Your task to perform on an android device: When is my next meeting? Image 0: 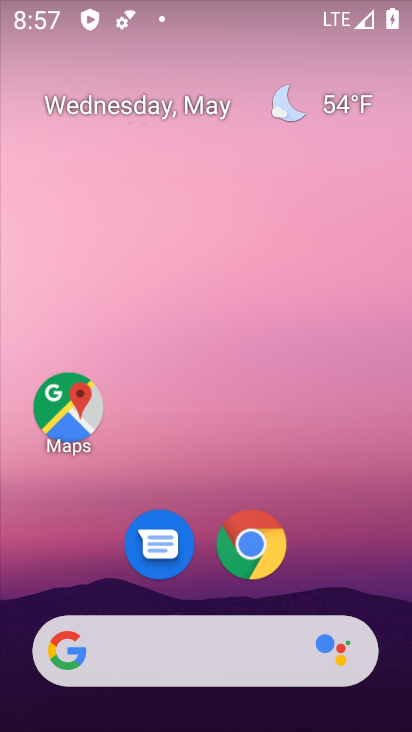
Step 0: click (205, 102)
Your task to perform on an android device: When is my next meeting? Image 1: 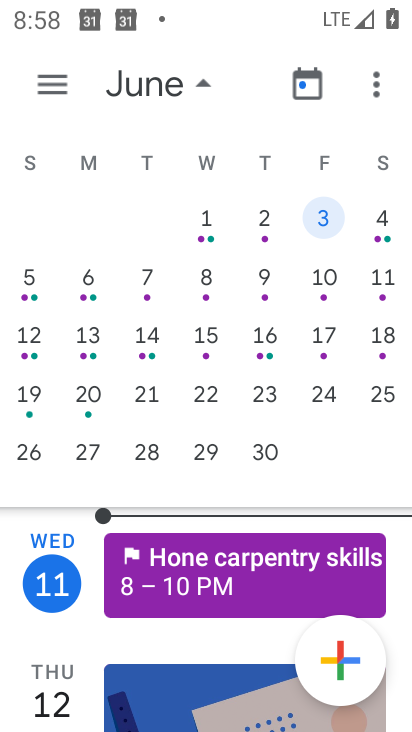
Step 1: task complete